Your task to perform on an android device: set the stopwatch Image 0: 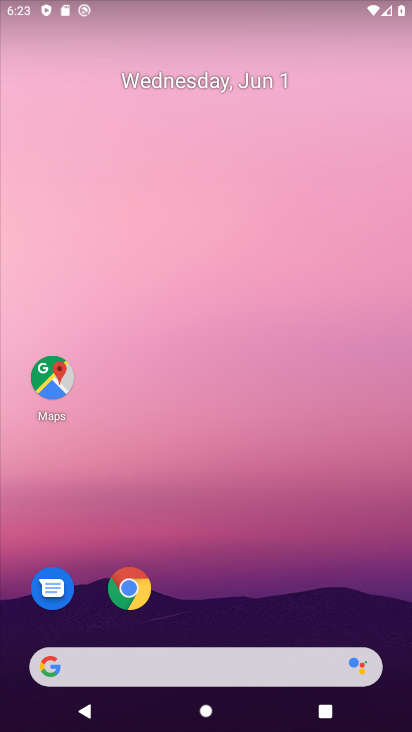
Step 0: drag from (214, 600) to (232, 191)
Your task to perform on an android device: set the stopwatch Image 1: 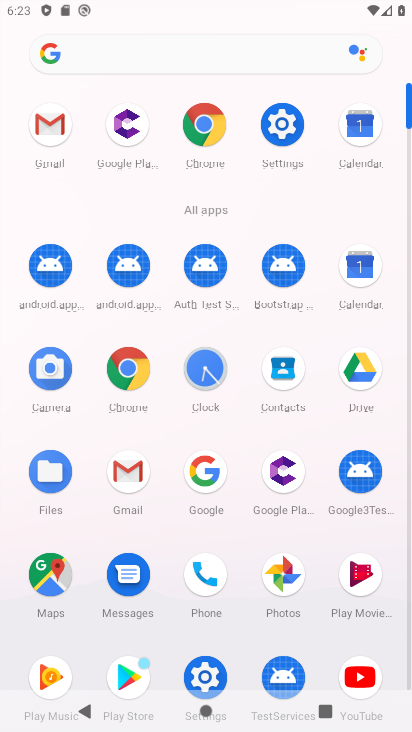
Step 1: click (212, 372)
Your task to perform on an android device: set the stopwatch Image 2: 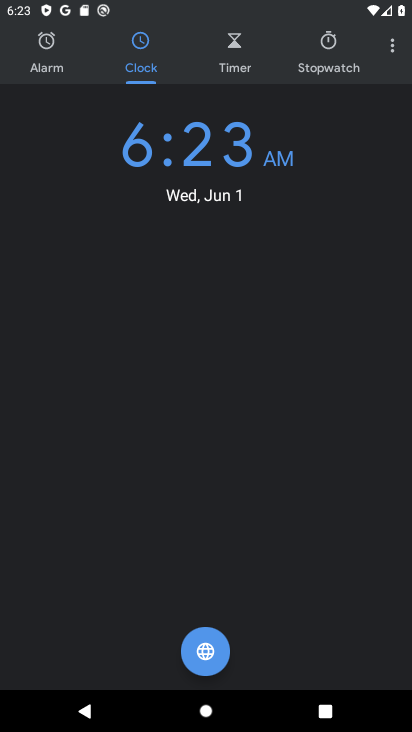
Step 2: click (329, 49)
Your task to perform on an android device: set the stopwatch Image 3: 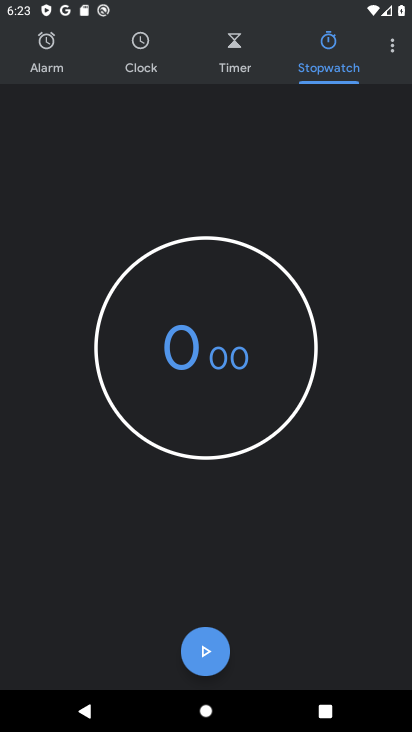
Step 3: click (200, 658)
Your task to perform on an android device: set the stopwatch Image 4: 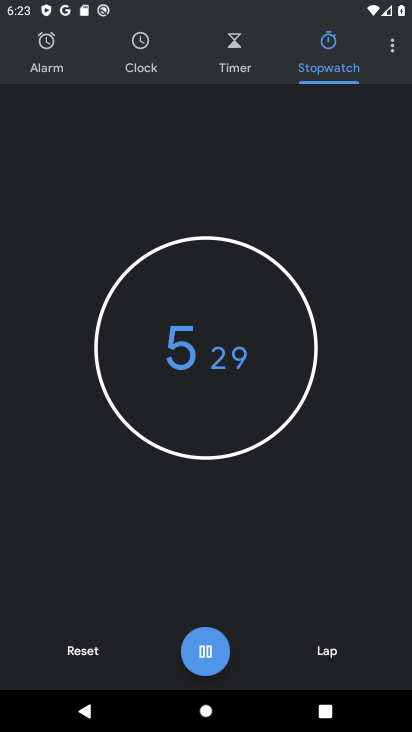
Step 4: click (200, 658)
Your task to perform on an android device: set the stopwatch Image 5: 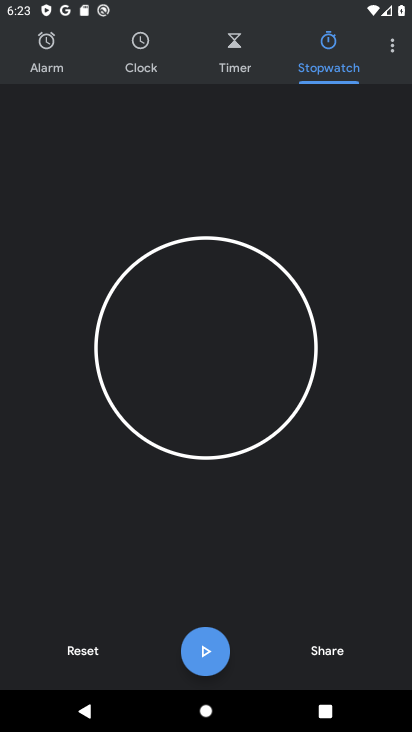
Step 5: task complete